Your task to perform on an android device: Do I have any events this weekend? Image 0: 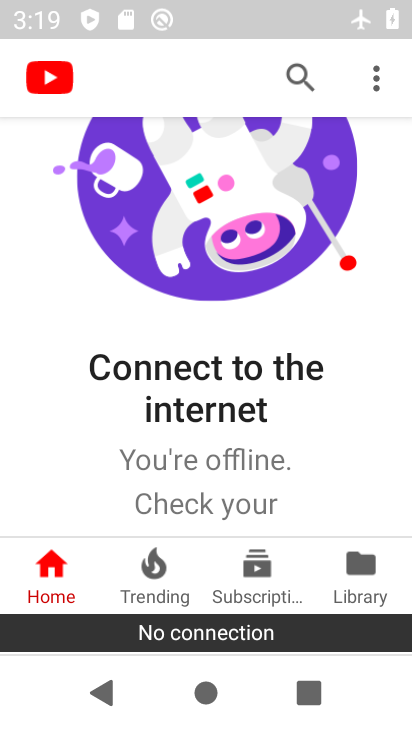
Step 0: press home button
Your task to perform on an android device: Do I have any events this weekend? Image 1: 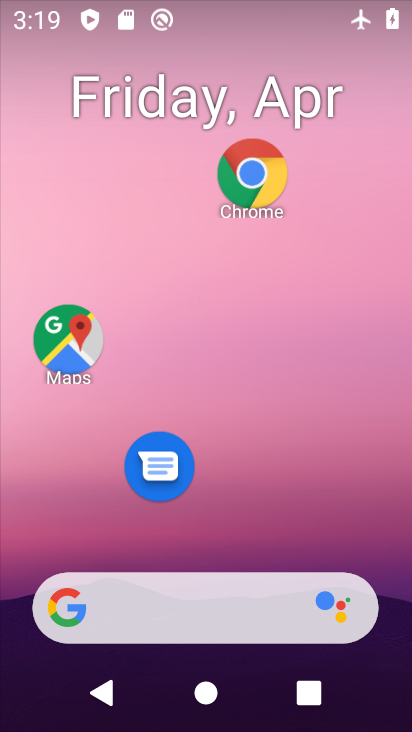
Step 1: drag from (233, 552) to (134, 93)
Your task to perform on an android device: Do I have any events this weekend? Image 2: 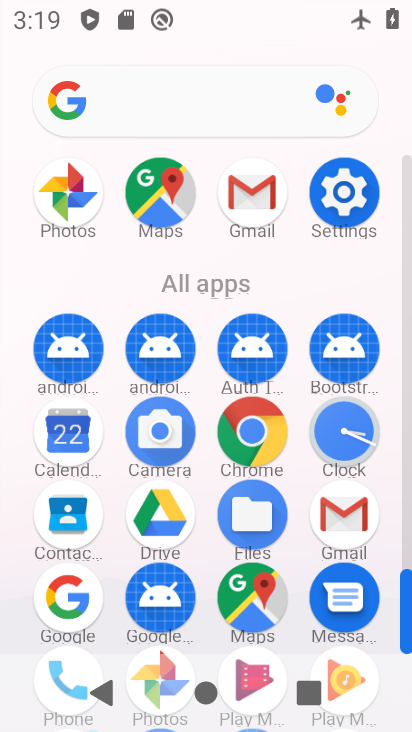
Step 2: click (58, 456)
Your task to perform on an android device: Do I have any events this weekend? Image 3: 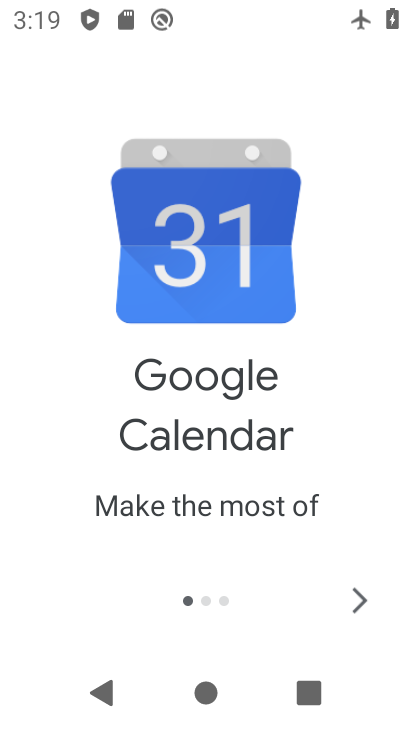
Step 3: click (360, 603)
Your task to perform on an android device: Do I have any events this weekend? Image 4: 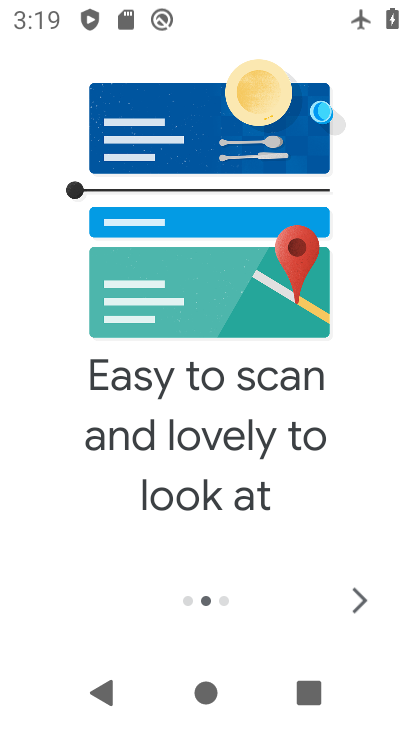
Step 4: click (360, 603)
Your task to perform on an android device: Do I have any events this weekend? Image 5: 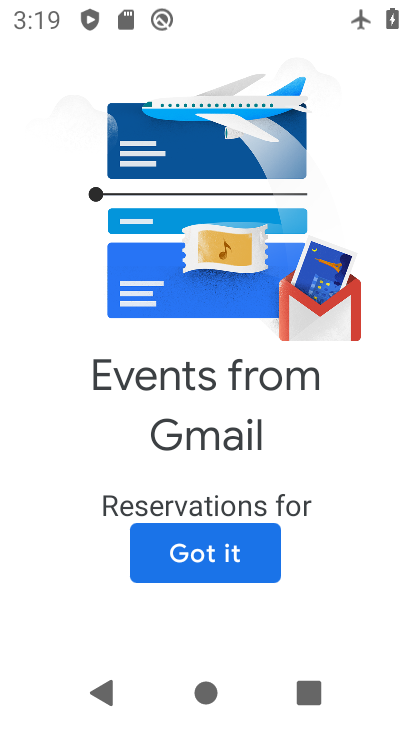
Step 5: click (360, 603)
Your task to perform on an android device: Do I have any events this weekend? Image 6: 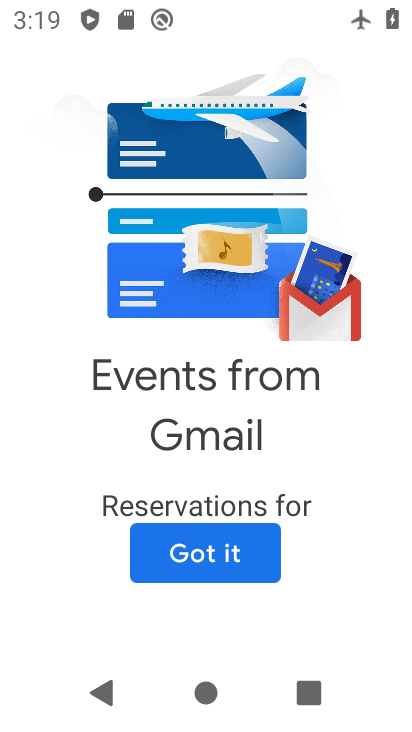
Step 6: click (215, 543)
Your task to perform on an android device: Do I have any events this weekend? Image 7: 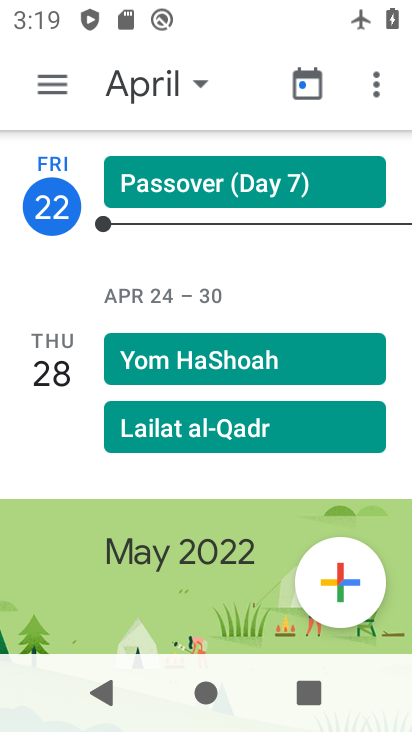
Step 7: click (189, 84)
Your task to perform on an android device: Do I have any events this weekend? Image 8: 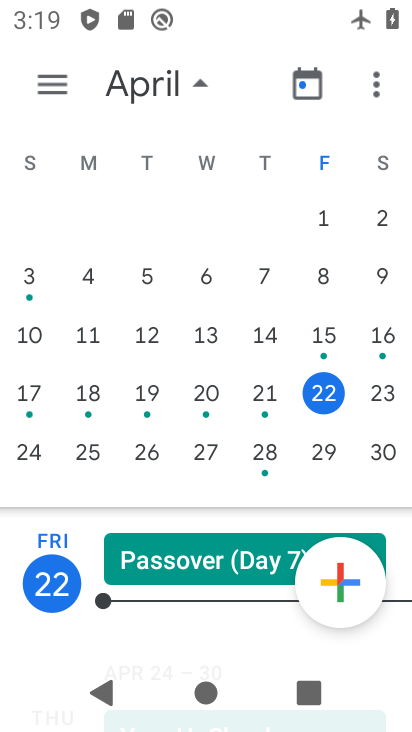
Step 8: click (151, 91)
Your task to perform on an android device: Do I have any events this weekend? Image 9: 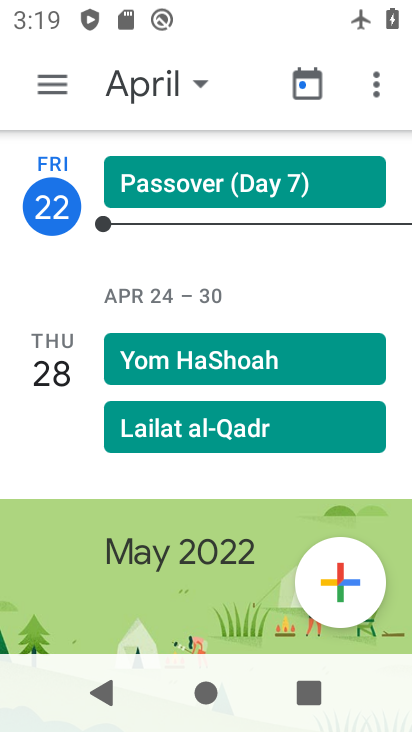
Step 9: click (61, 94)
Your task to perform on an android device: Do I have any events this weekend? Image 10: 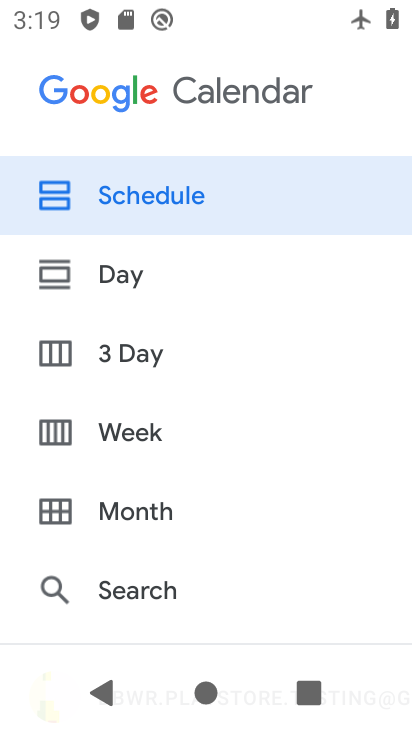
Step 10: click (137, 364)
Your task to perform on an android device: Do I have any events this weekend? Image 11: 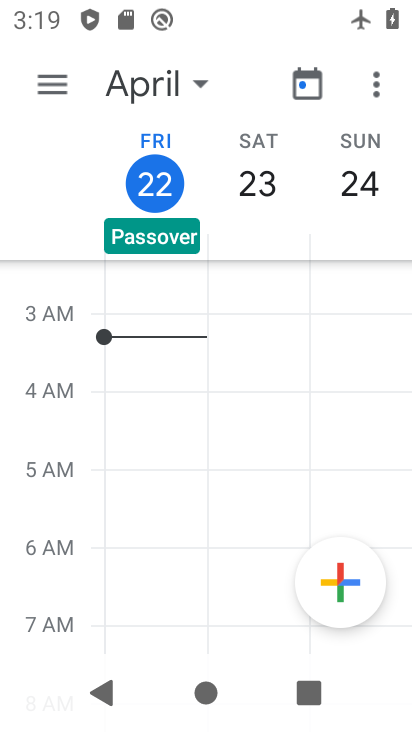
Step 11: task complete